Your task to perform on an android device: open wifi settings Image 0: 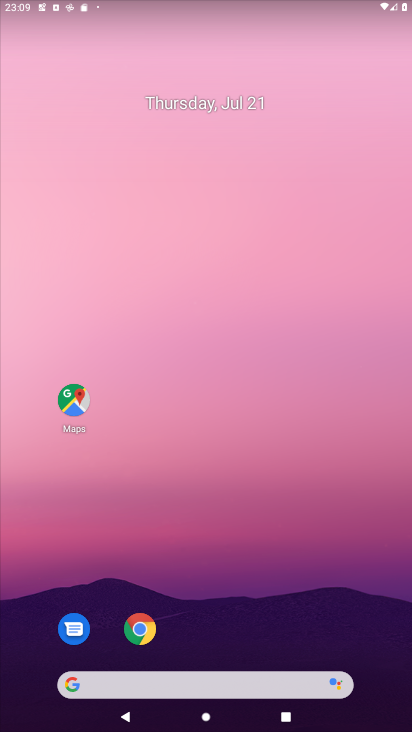
Step 0: drag from (304, 602) to (289, 38)
Your task to perform on an android device: open wifi settings Image 1: 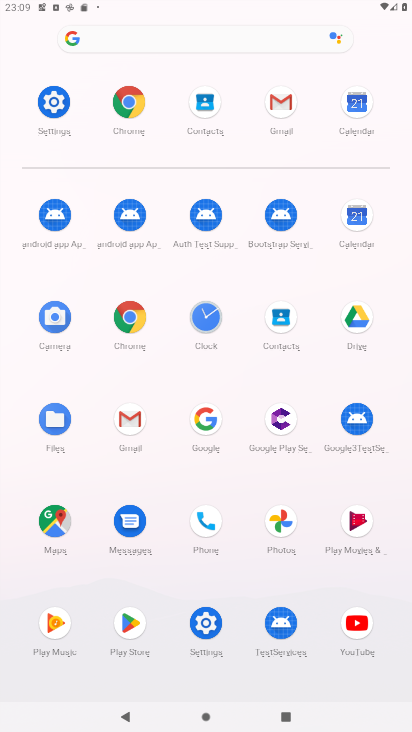
Step 1: click (68, 113)
Your task to perform on an android device: open wifi settings Image 2: 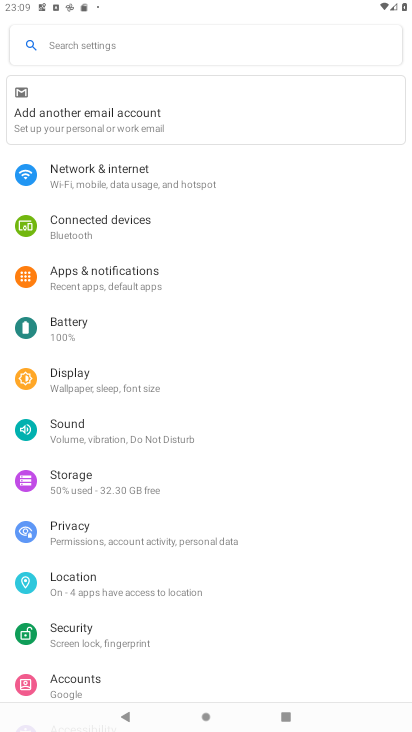
Step 2: click (221, 187)
Your task to perform on an android device: open wifi settings Image 3: 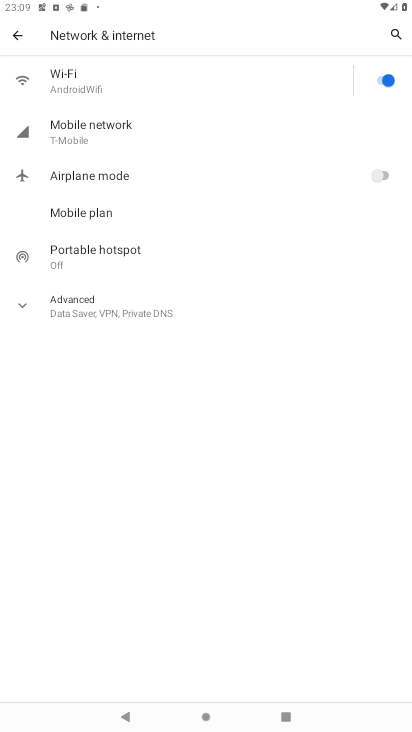
Step 3: click (136, 81)
Your task to perform on an android device: open wifi settings Image 4: 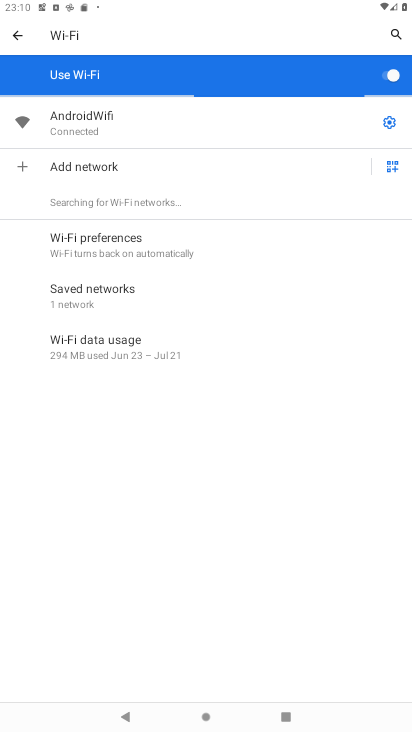
Step 4: task complete